Your task to perform on an android device: Is it going to rain tomorrow? Image 0: 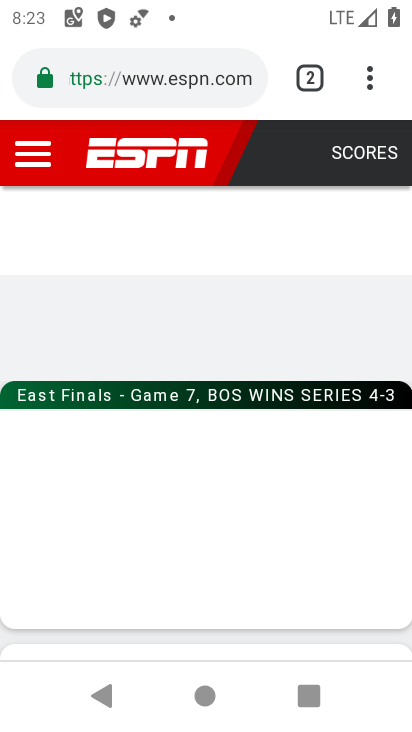
Step 0: press home button
Your task to perform on an android device: Is it going to rain tomorrow? Image 1: 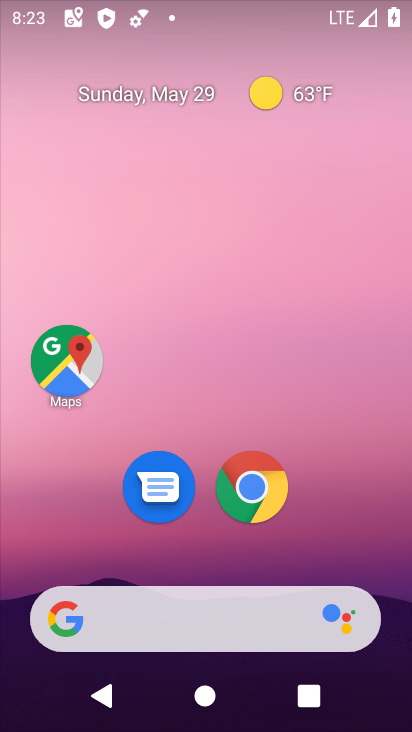
Step 1: drag from (204, 658) to (288, 86)
Your task to perform on an android device: Is it going to rain tomorrow? Image 2: 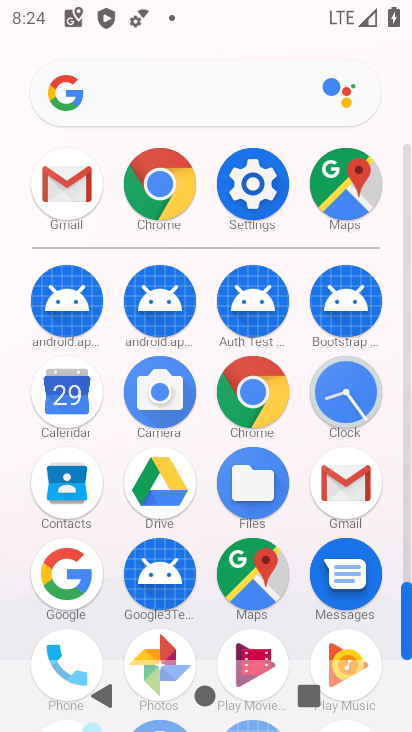
Step 2: click (76, 600)
Your task to perform on an android device: Is it going to rain tomorrow? Image 3: 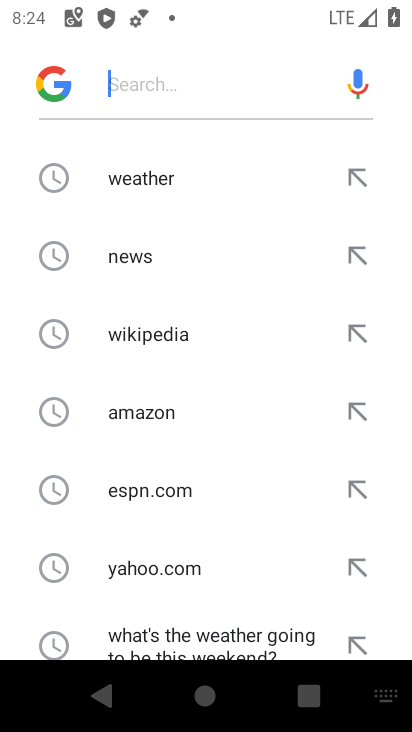
Step 3: click (177, 184)
Your task to perform on an android device: Is it going to rain tomorrow? Image 4: 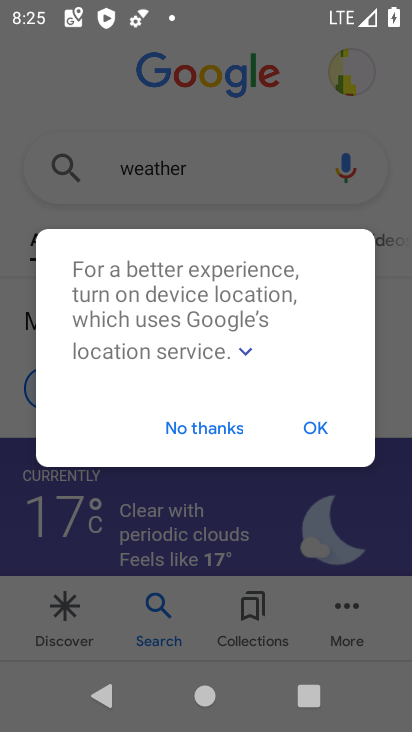
Step 4: click (316, 436)
Your task to perform on an android device: Is it going to rain tomorrow? Image 5: 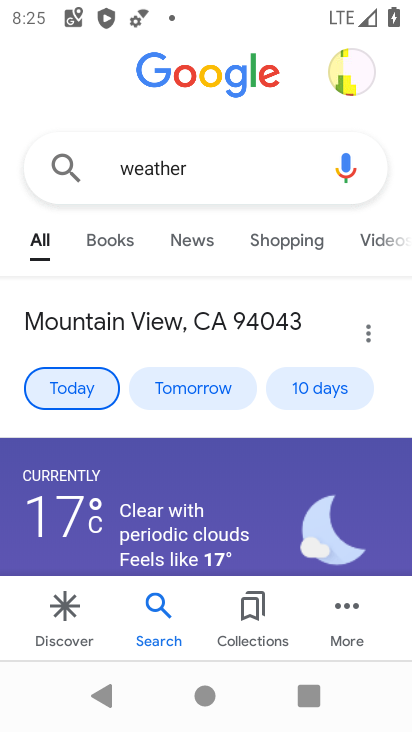
Step 5: click (198, 386)
Your task to perform on an android device: Is it going to rain tomorrow? Image 6: 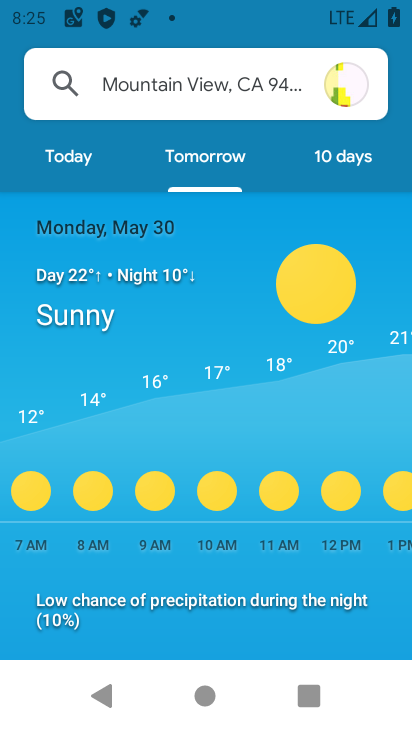
Step 6: task complete